Your task to perform on an android device: open the mobile data screen to see how much data has been used Image 0: 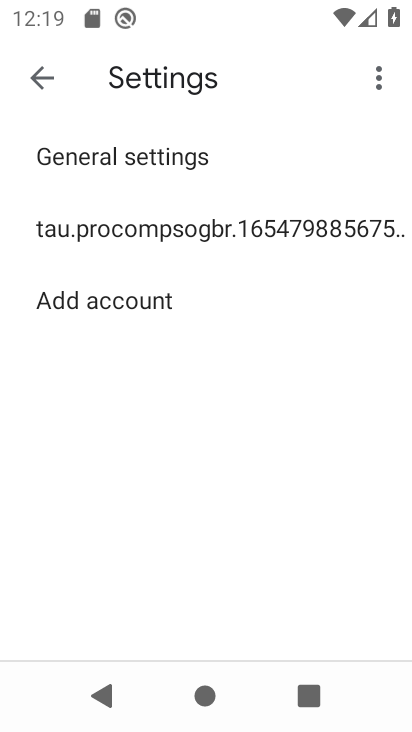
Step 0: press home button
Your task to perform on an android device: open the mobile data screen to see how much data has been used Image 1: 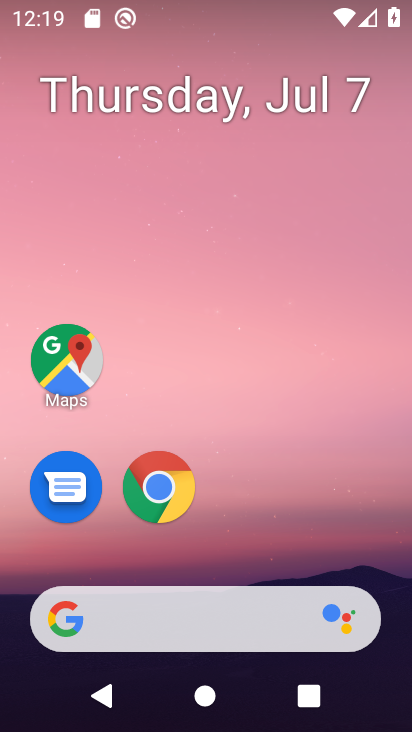
Step 1: drag from (372, 486) to (362, 98)
Your task to perform on an android device: open the mobile data screen to see how much data has been used Image 2: 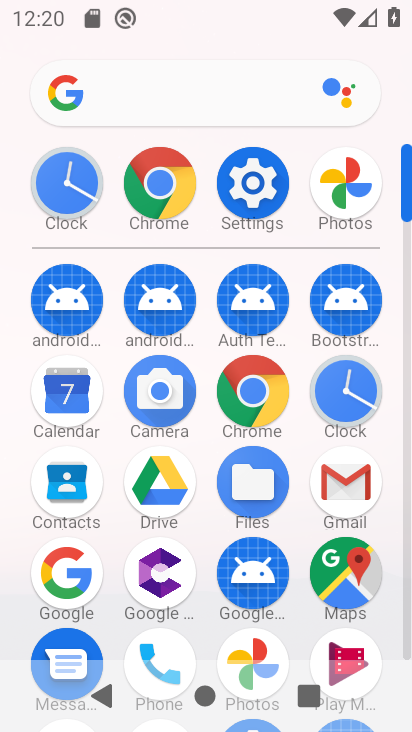
Step 2: click (267, 206)
Your task to perform on an android device: open the mobile data screen to see how much data has been used Image 3: 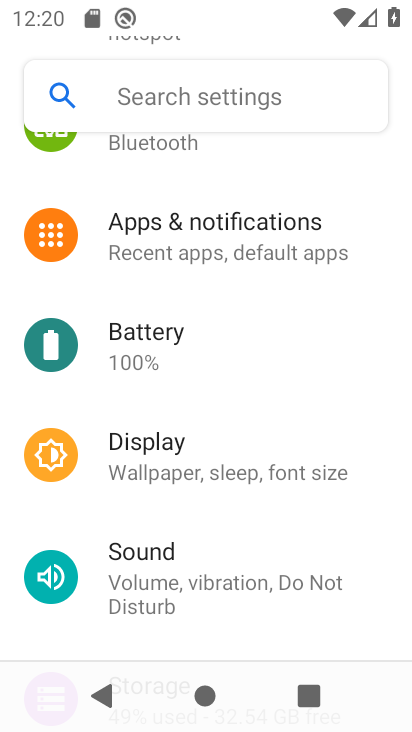
Step 3: drag from (345, 188) to (356, 351)
Your task to perform on an android device: open the mobile data screen to see how much data has been used Image 4: 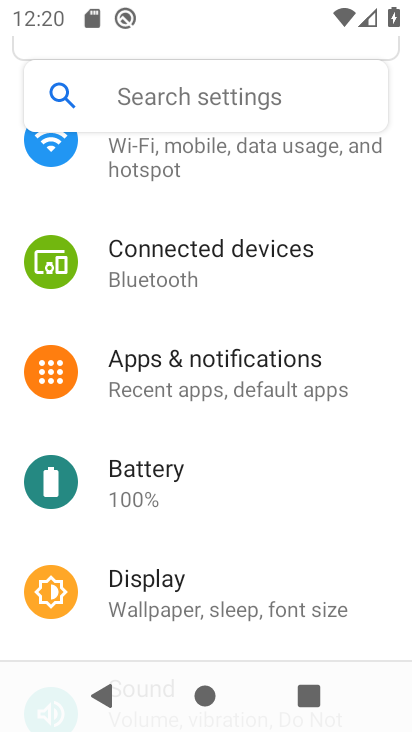
Step 4: drag from (367, 232) to (375, 362)
Your task to perform on an android device: open the mobile data screen to see how much data has been used Image 5: 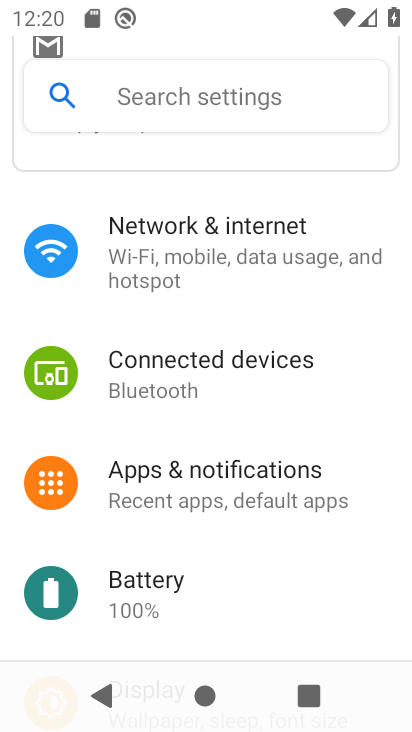
Step 5: drag from (376, 309) to (392, 426)
Your task to perform on an android device: open the mobile data screen to see how much data has been used Image 6: 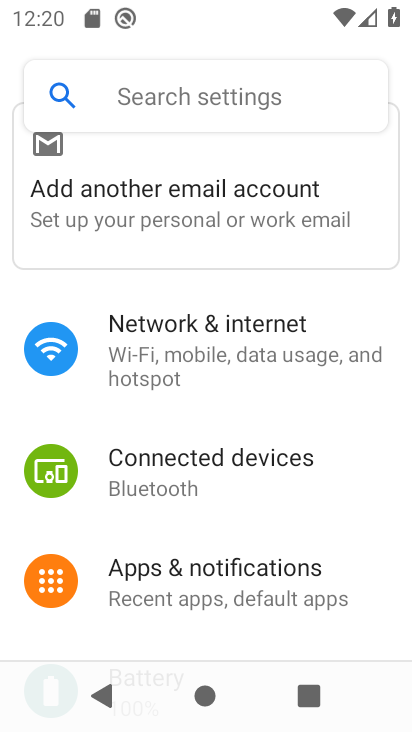
Step 6: click (307, 359)
Your task to perform on an android device: open the mobile data screen to see how much data has been used Image 7: 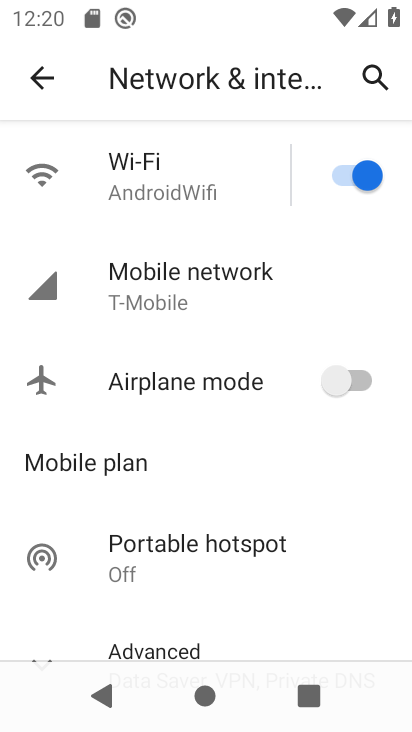
Step 7: drag from (288, 210) to (281, 352)
Your task to perform on an android device: open the mobile data screen to see how much data has been used Image 8: 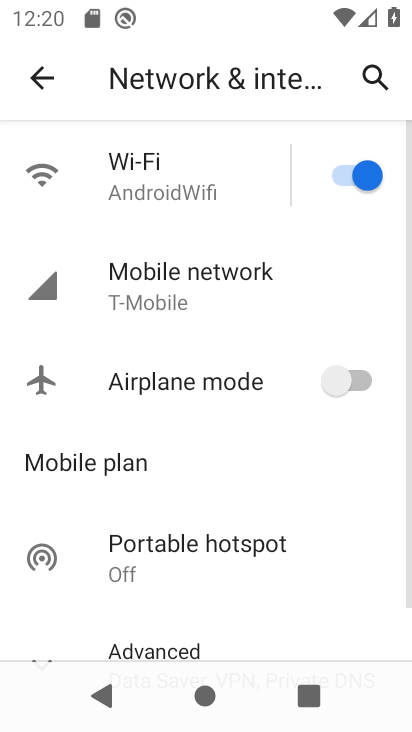
Step 8: click (238, 300)
Your task to perform on an android device: open the mobile data screen to see how much data has been used Image 9: 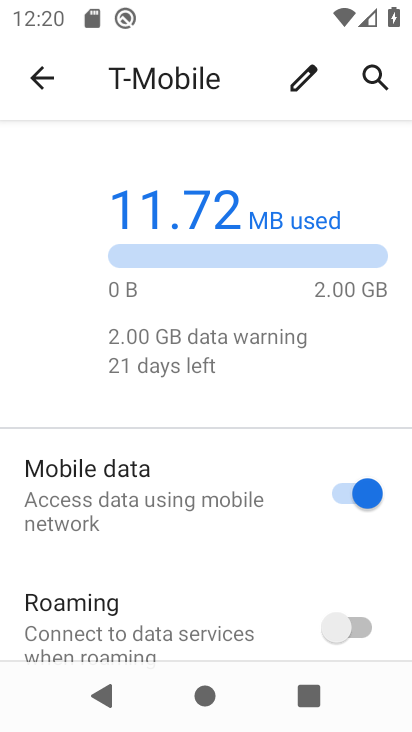
Step 9: drag from (327, 437) to (317, 266)
Your task to perform on an android device: open the mobile data screen to see how much data has been used Image 10: 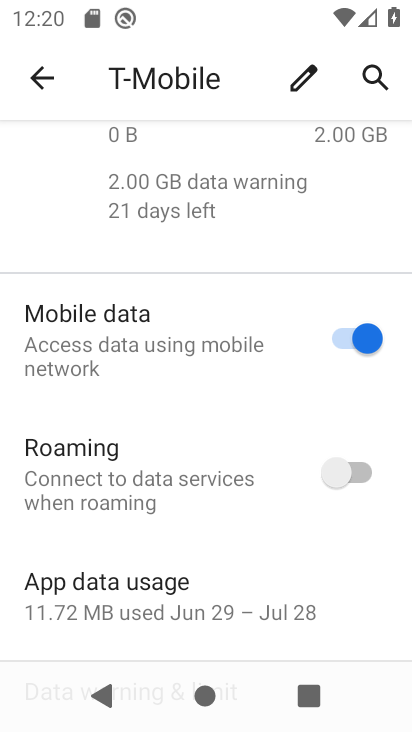
Step 10: drag from (280, 469) to (264, 336)
Your task to perform on an android device: open the mobile data screen to see how much data has been used Image 11: 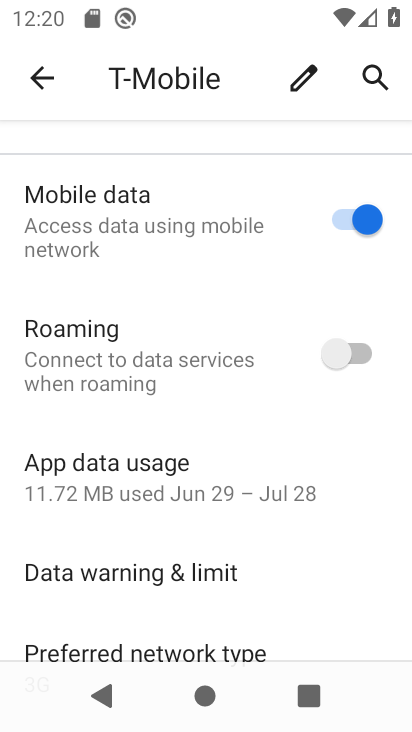
Step 11: click (288, 463)
Your task to perform on an android device: open the mobile data screen to see how much data has been used Image 12: 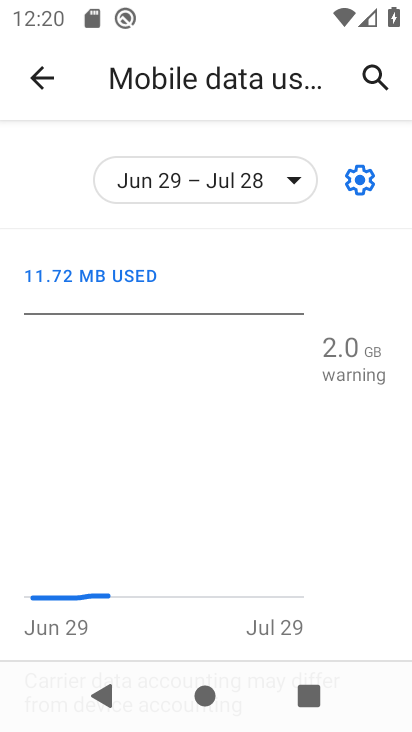
Step 12: task complete